Your task to perform on an android device: remove spam from my inbox in the gmail app Image 0: 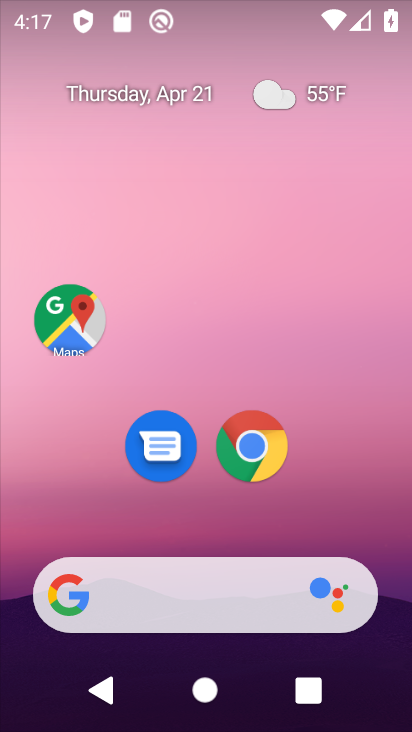
Step 0: drag from (192, 520) to (233, 236)
Your task to perform on an android device: remove spam from my inbox in the gmail app Image 1: 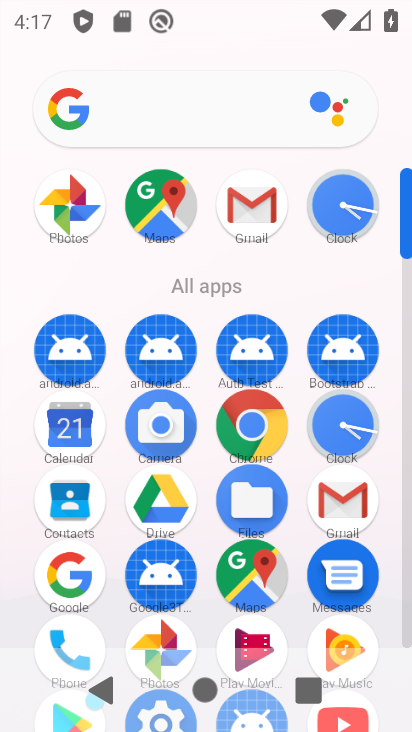
Step 1: click (255, 186)
Your task to perform on an android device: remove spam from my inbox in the gmail app Image 2: 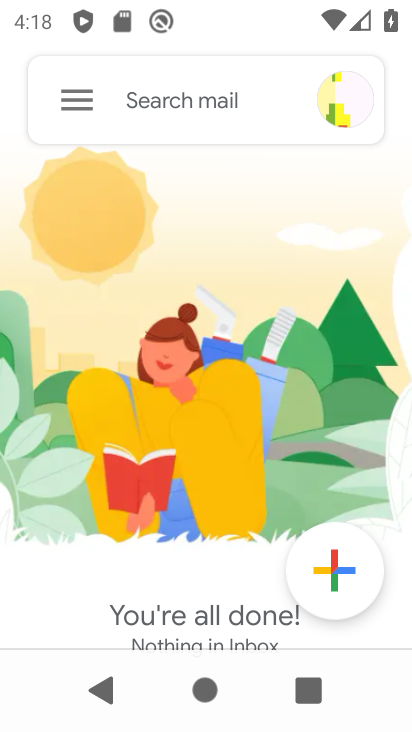
Step 2: click (76, 92)
Your task to perform on an android device: remove spam from my inbox in the gmail app Image 3: 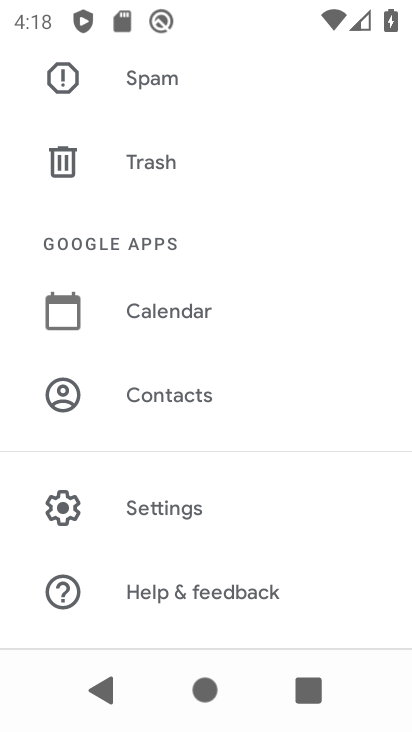
Step 3: click (157, 108)
Your task to perform on an android device: remove spam from my inbox in the gmail app Image 4: 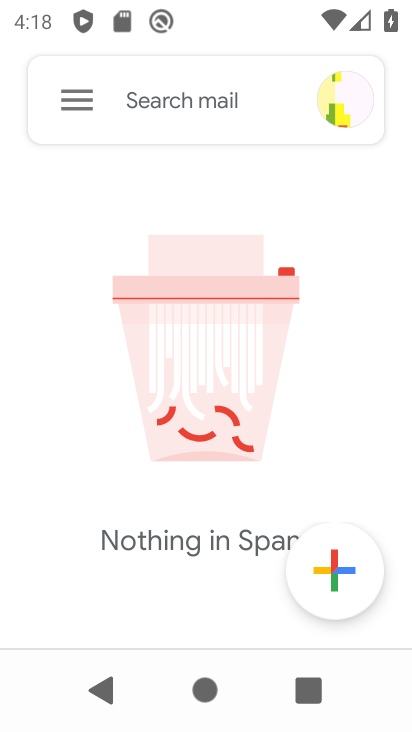
Step 4: task complete